Your task to perform on an android device: Open Youtube and go to "Your channel" Image 0: 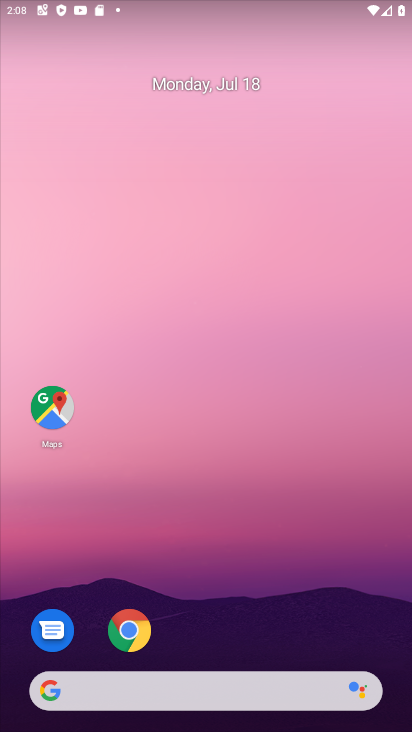
Step 0: drag from (377, 637) to (318, 209)
Your task to perform on an android device: Open Youtube and go to "Your channel" Image 1: 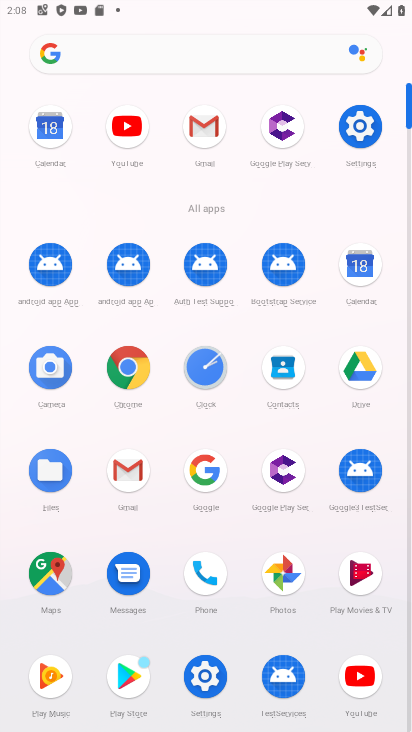
Step 1: click (354, 668)
Your task to perform on an android device: Open Youtube and go to "Your channel" Image 2: 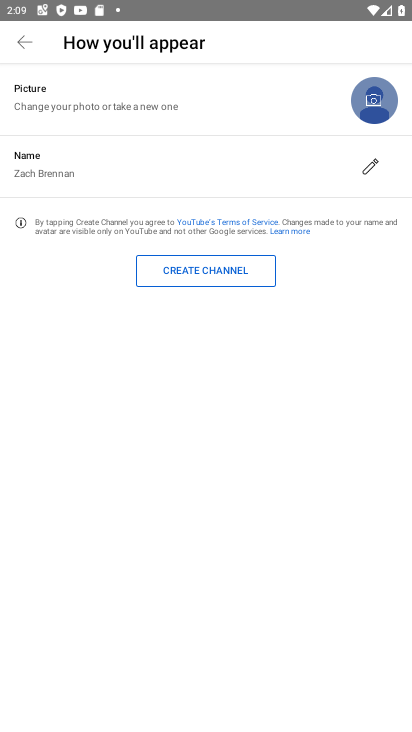
Step 2: task complete